Your task to perform on an android device: turn on the 12-hour format for clock Image 0: 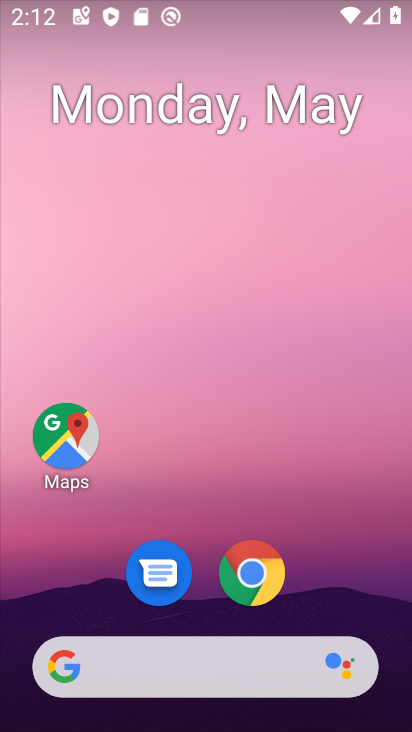
Step 0: drag from (90, 619) to (246, 88)
Your task to perform on an android device: turn on the 12-hour format for clock Image 1: 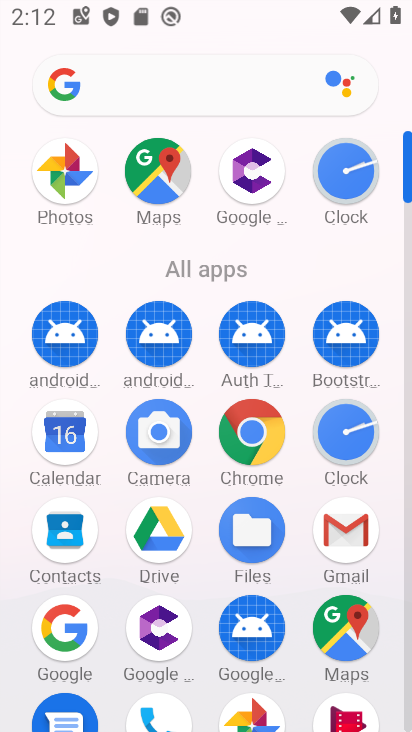
Step 1: click (335, 427)
Your task to perform on an android device: turn on the 12-hour format for clock Image 2: 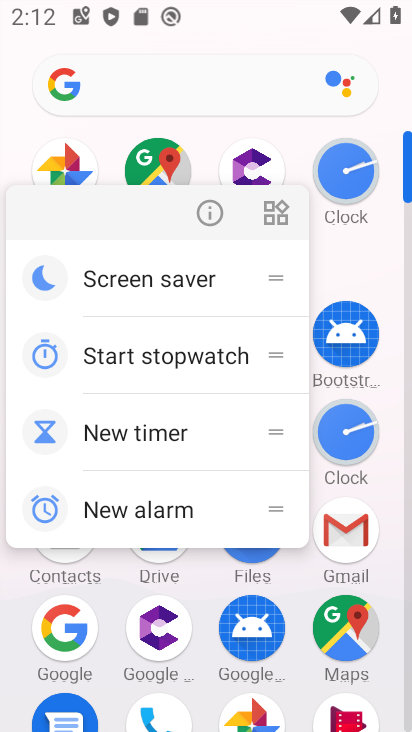
Step 2: click (362, 432)
Your task to perform on an android device: turn on the 12-hour format for clock Image 3: 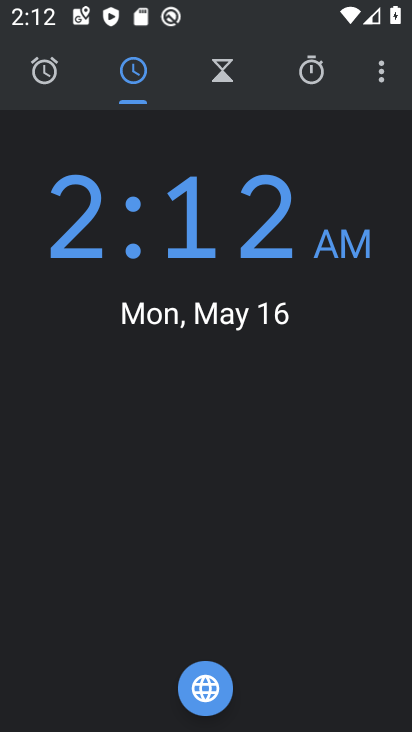
Step 3: click (390, 80)
Your task to perform on an android device: turn on the 12-hour format for clock Image 4: 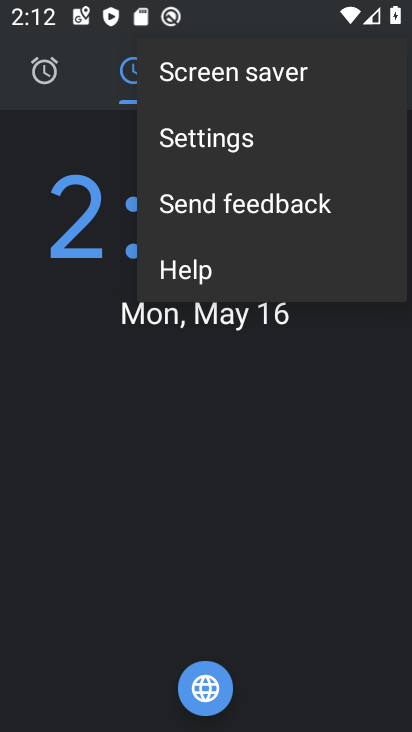
Step 4: click (335, 145)
Your task to perform on an android device: turn on the 12-hour format for clock Image 5: 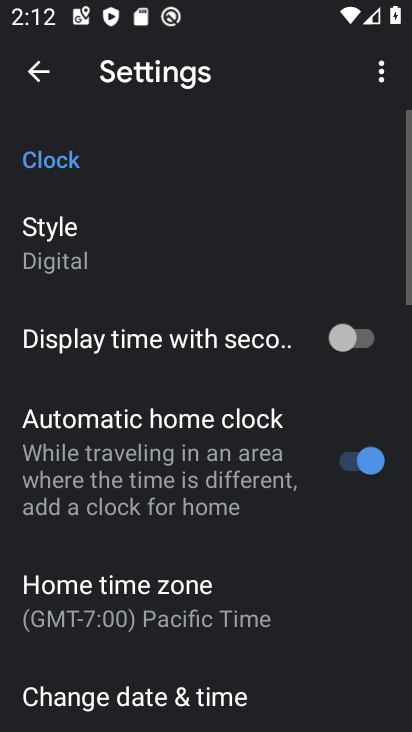
Step 5: drag from (200, 559) to (283, 267)
Your task to perform on an android device: turn on the 12-hour format for clock Image 6: 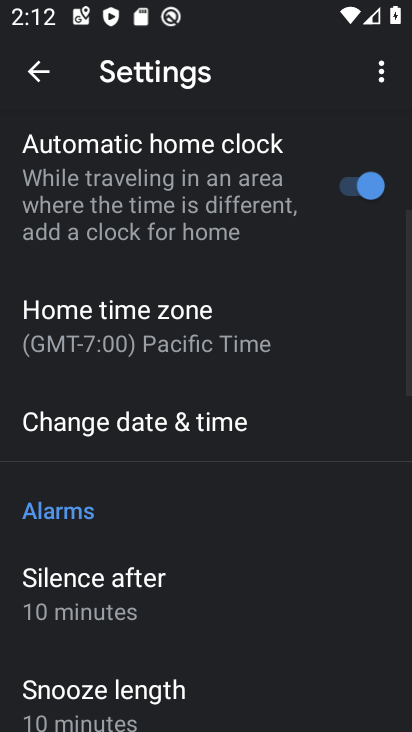
Step 6: click (207, 439)
Your task to perform on an android device: turn on the 12-hour format for clock Image 7: 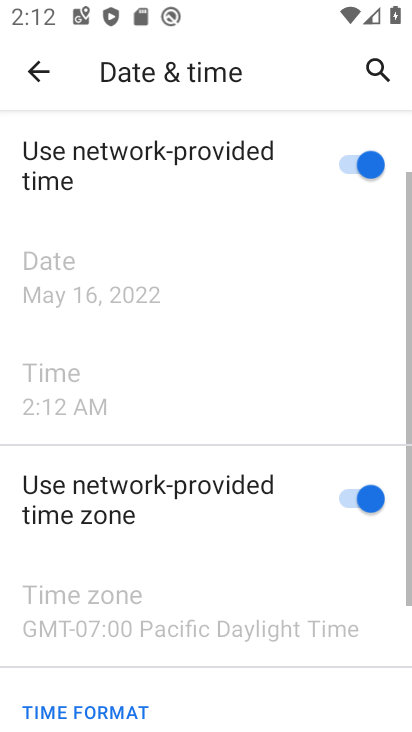
Step 7: task complete